Your task to perform on an android device: install app "Etsy: Buy & Sell Unique Items" Image 0: 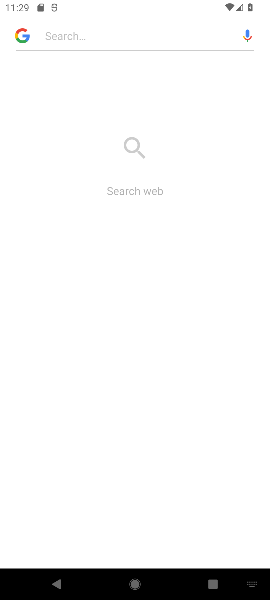
Step 0: press home button
Your task to perform on an android device: install app "Etsy: Buy & Sell Unique Items" Image 1: 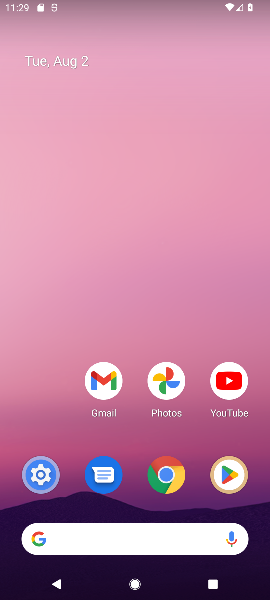
Step 1: drag from (110, 500) to (136, 488)
Your task to perform on an android device: install app "Etsy: Buy & Sell Unique Items" Image 2: 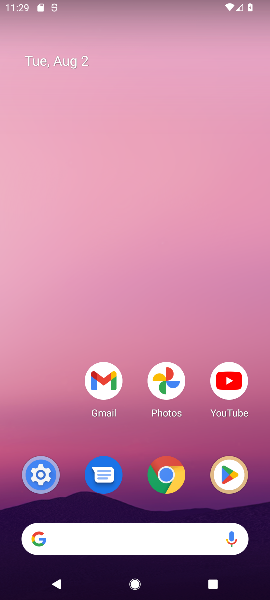
Step 2: click (221, 472)
Your task to perform on an android device: install app "Etsy: Buy & Sell Unique Items" Image 3: 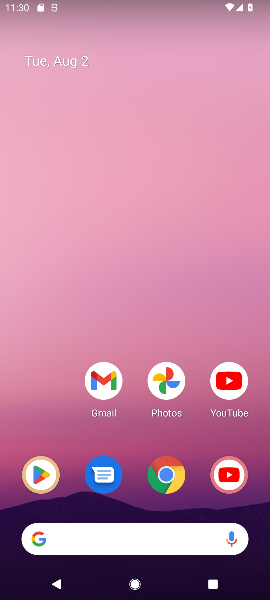
Step 3: click (41, 473)
Your task to perform on an android device: install app "Etsy: Buy & Sell Unique Items" Image 4: 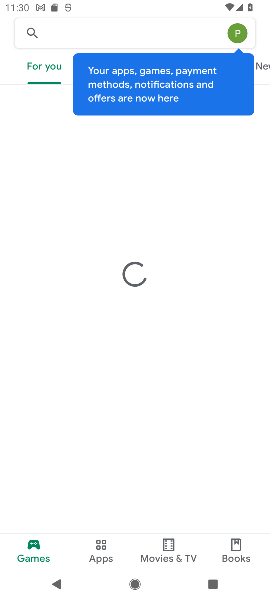
Step 4: click (114, 25)
Your task to perform on an android device: install app "Etsy: Buy & Sell Unique Items" Image 5: 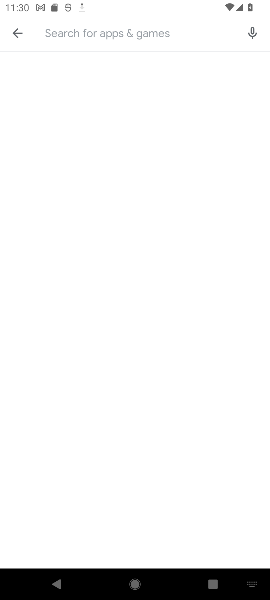
Step 5: type "Etsy: Buy & Sell Unique Items"
Your task to perform on an android device: install app "Etsy: Buy & Sell Unique Items" Image 6: 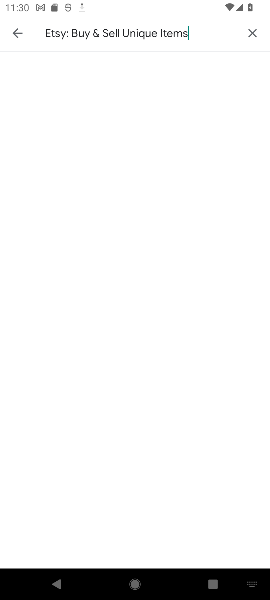
Step 6: type ""
Your task to perform on an android device: install app "Etsy: Buy & Sell Unique Items" Image 7: 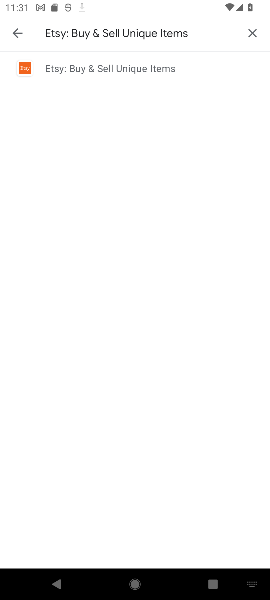
Step 7: click (150, 62)
Your task to perform on an android device: install app "Etsy: Buy & Sell Unique Items" Image 8: 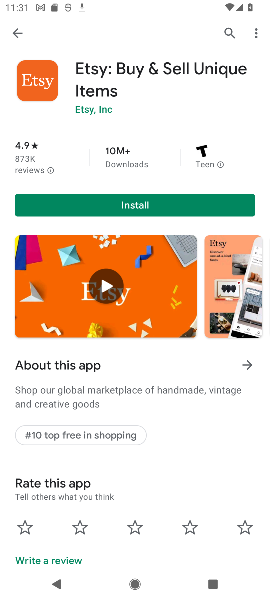
Step 8: click (124, 204)
Your task to perform on an android device: install app "Etsy: Buy & Sell Unique Items" Image 9: 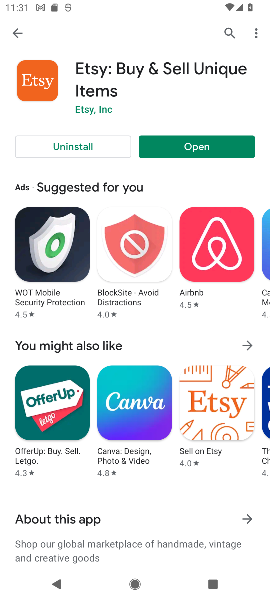
Step 9: task complete